Your task to perform on an android device: allow notifications from all sites in the chrome app Image 0: 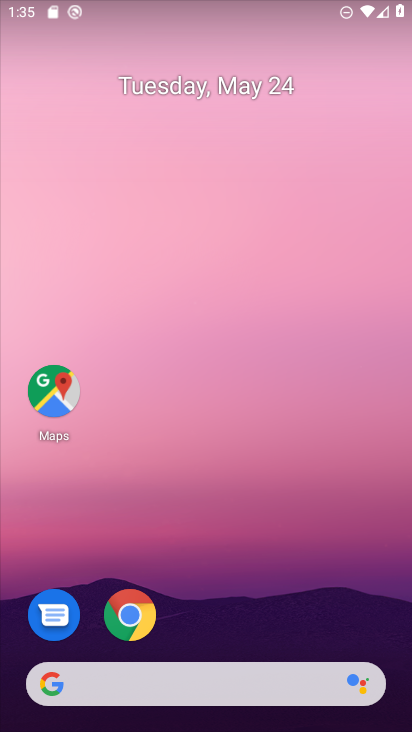
Step 0: click (122, 611)
Your task to perform on an android device: allow notifications from all sites in the chrome app Image 1: 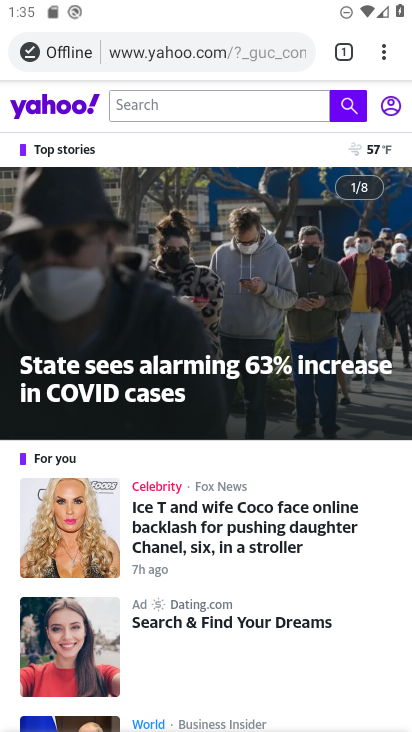
Step 1: click (380, 39)
Your task to perform on an android device: allow notifications from all sites in the chrome app Image 2: 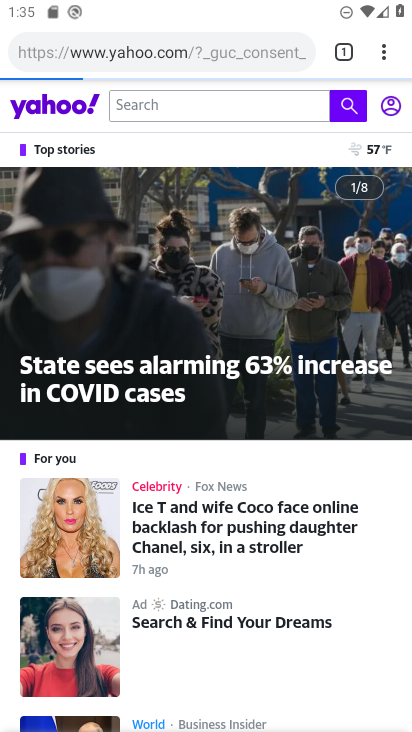
Step 2: click (385, 35)
Your task to perform on an android device: allow notifications from all sites in the chrome app Image 3: 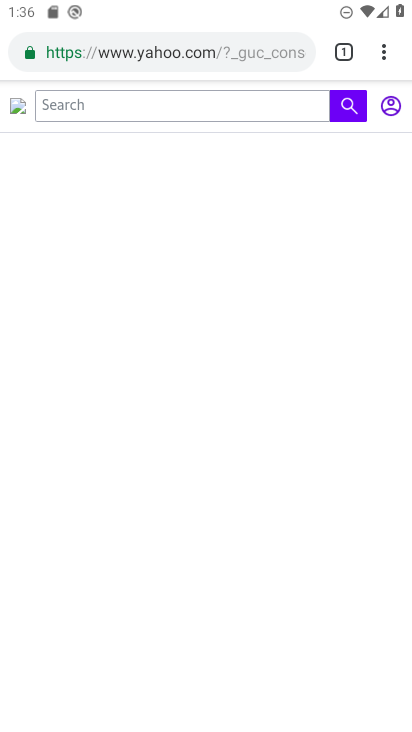
Step 3: drag from (384, 45) to (204, 621)
Your task to perform on an android device: allow notifications from all sites in the chrome app Image 4: 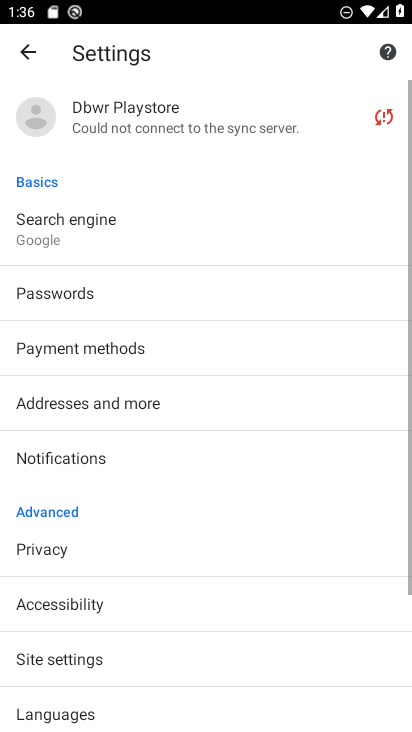
Step 4: drag from (178, 642) to (267, 293)
Your task to perform on an android device: allow notifications from all sites in the chrome app Image 5: 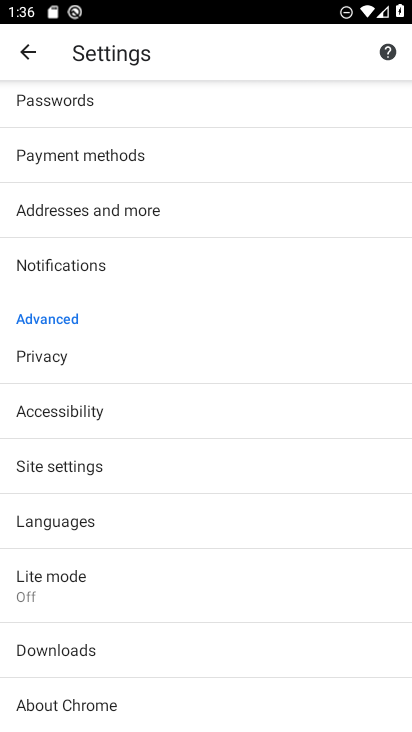
Step 5: click (64, 257)
Your task to perform on an android device: allow notifications from all sites in the chrome app Image 6: 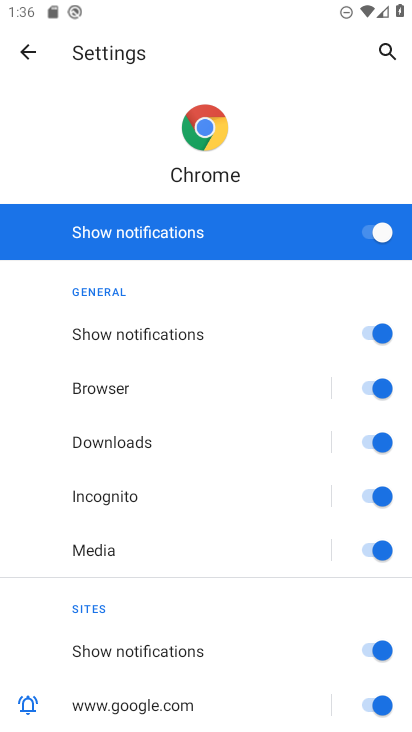
Step 6: task complete